Your task to perform on an android device: Open display settings Image 0: 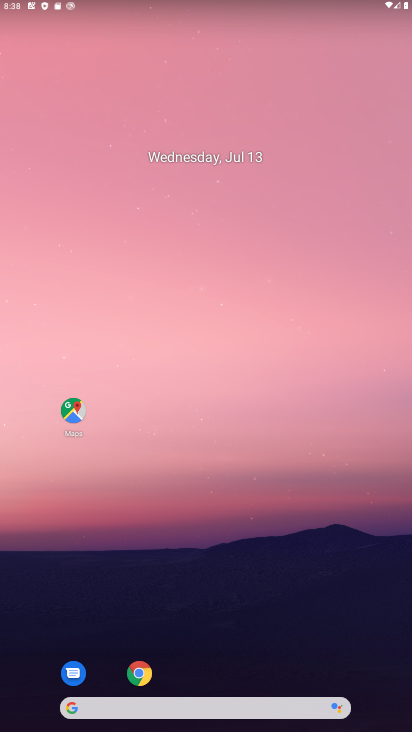
Step 0: drag from (284, 629) to (251, 454)
Your task to perform on an android device: Open display settings Image 1: 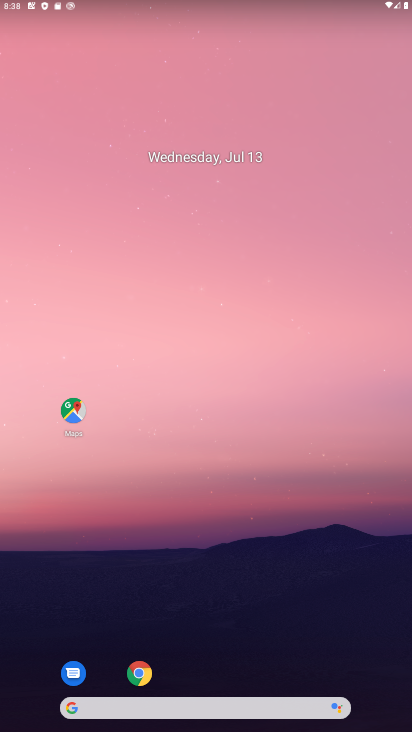
Step 1: drag from (226, 550) to (181, 82)
Your task to perform on an android device: Open display settings Image 2: 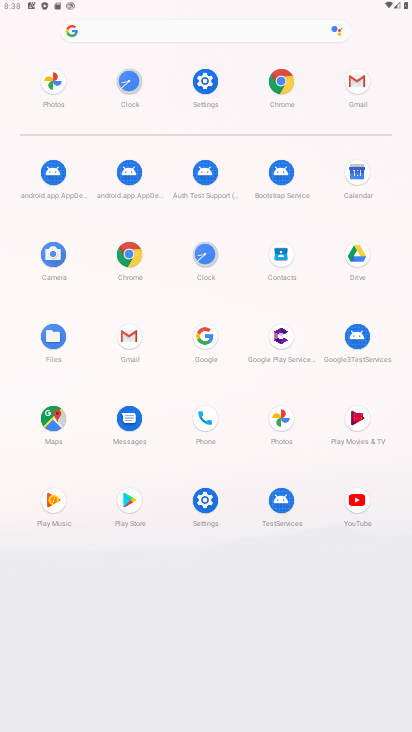
Step 2: click (198, 83)
Your task to perform on an android device: Open display settings Image 3: 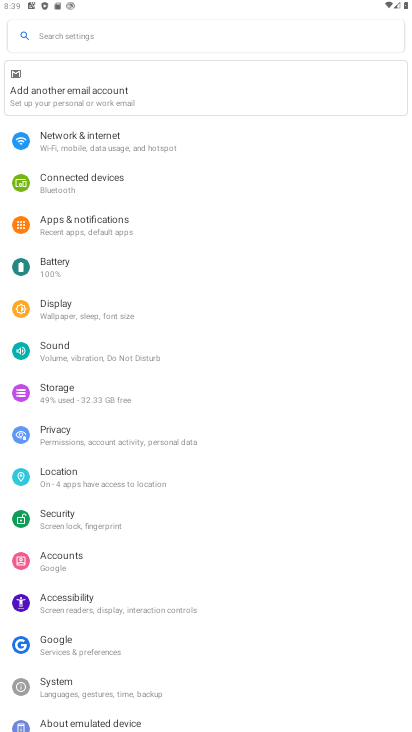
Step 3: click (102, 310)
Your task to perform on an android device: Open display settings Image 4: 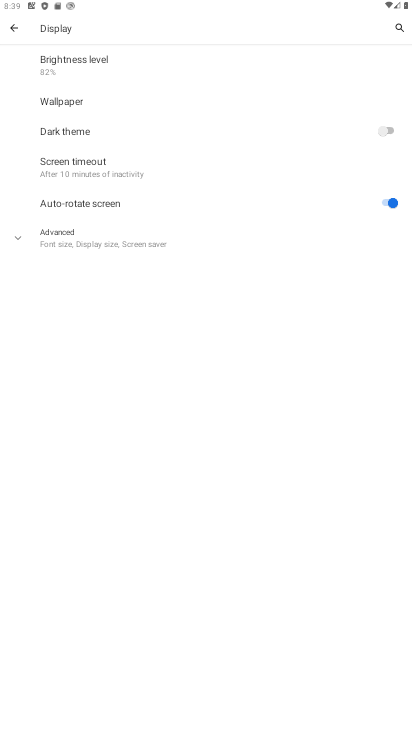
Step 4: task complete